Your task to perform on an android device: Go to privacy settings Image 0: 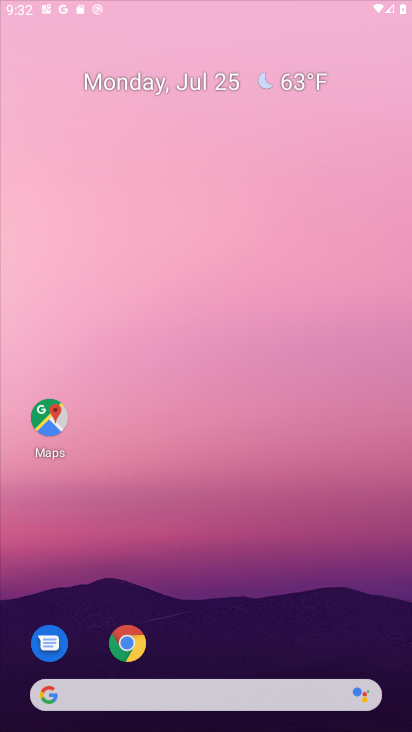
Step 0: drag from (183, 11) to (304, 26)
Your task to perform on an android device: Go to privacy settings Image 1: 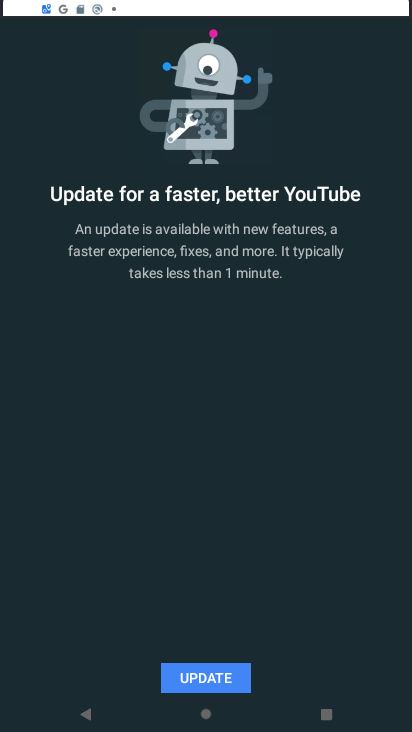
Step 1: drag from (298, 527) to (274, 51)
Your task to perform on an android device: Go to privacy settings Image 2: 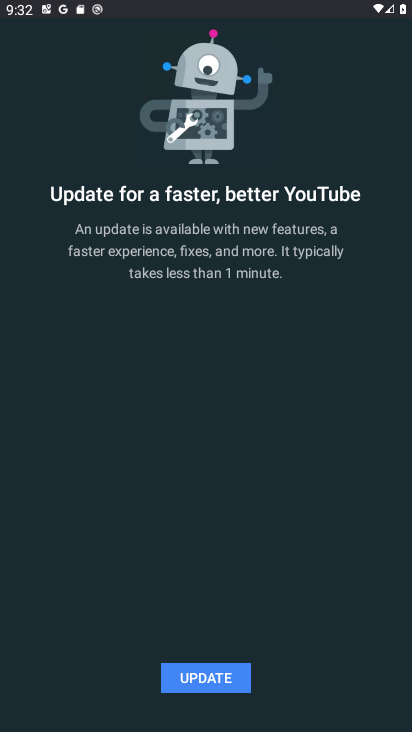
Step 2: press back button
Your task to perform on an android device: Go to privacy settings Image 3: 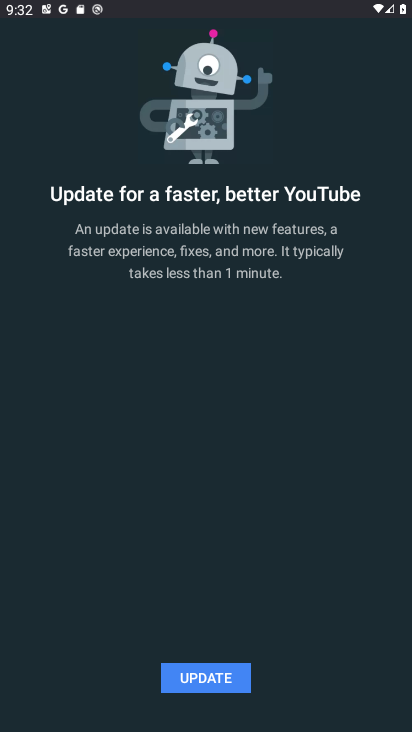
Step 3: press back button
Your task to perform on an android device: Go to privacy settings Image 4: 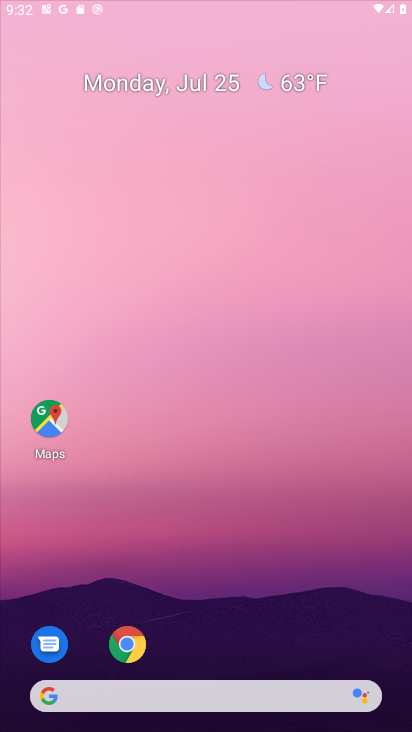
Step 4: press back button
Your task to perform on an android device: Go to privacy settings Image 5: 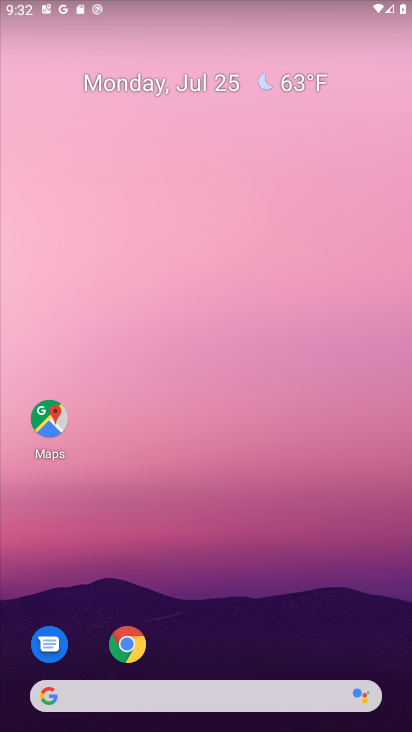
Step 5: drag from (167, 728) to (134, 67)
Your task to perform on an android device: Go to privacy settings Image 6: 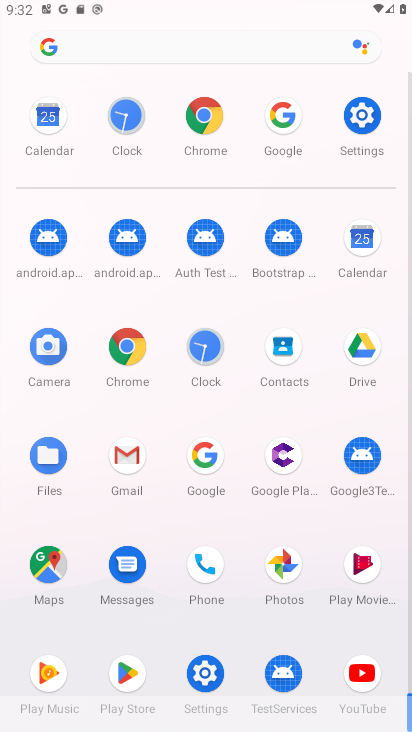
Step 6: click (379, 125)
Your task to perform on an android device: Go to privacy settings Image 7: 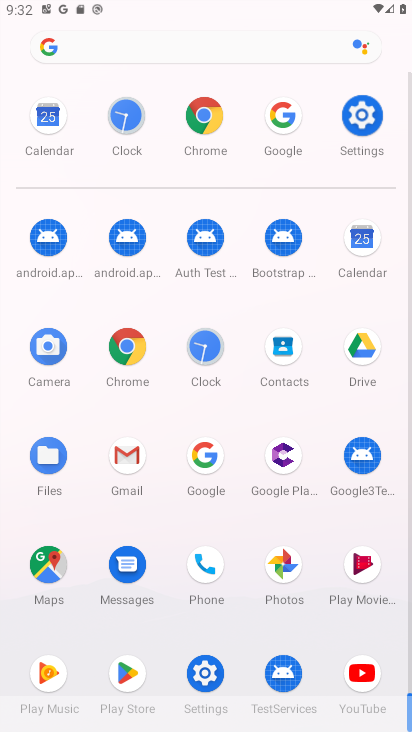
Step 7: click (373, 121)
Your task to perform on an android device: Go to privacy settings Image 8: 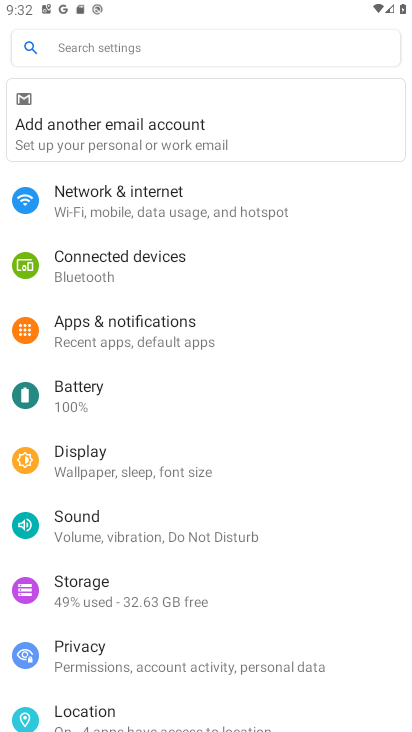
Step 8: click (89, 655)
Your task to perform on an android device: Go to privacy settings Image 9: 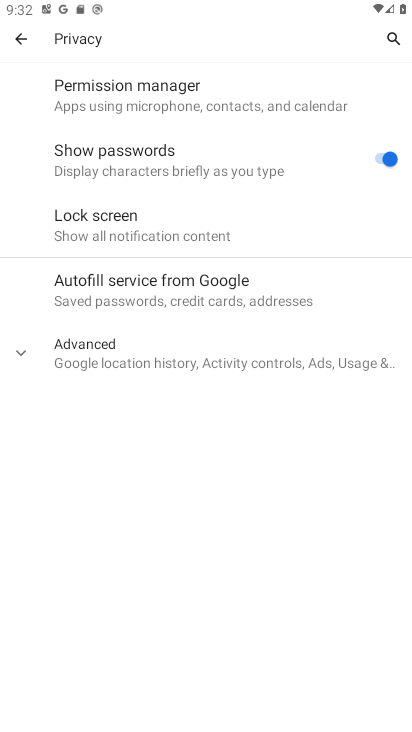
Step 9: task complete